Your task to perform on an android device: Search for the best coffee tables on Crate & Barrel Image 0: 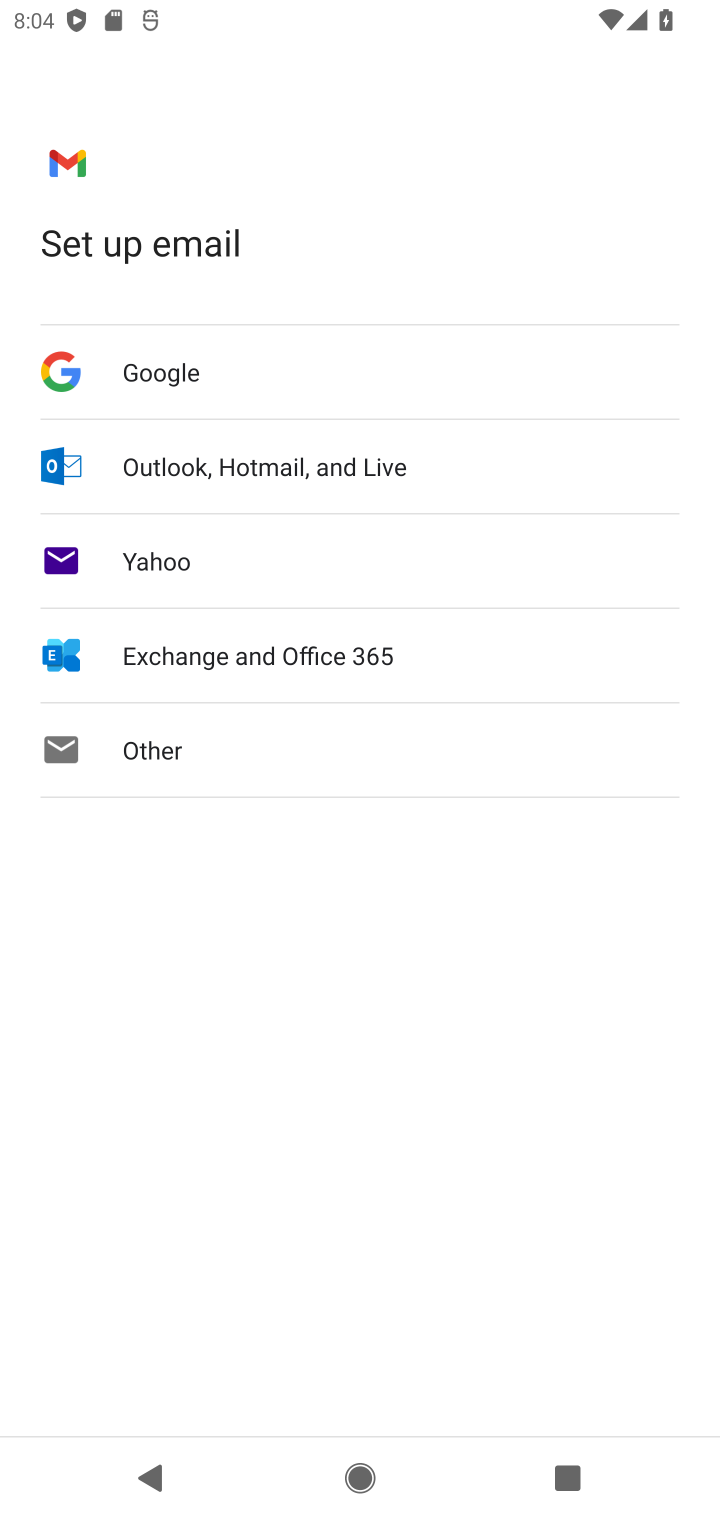
Step 0: press home button
Your task to perform on an android device: Search for the best coffee tables on Crate & Barrel Image 1: 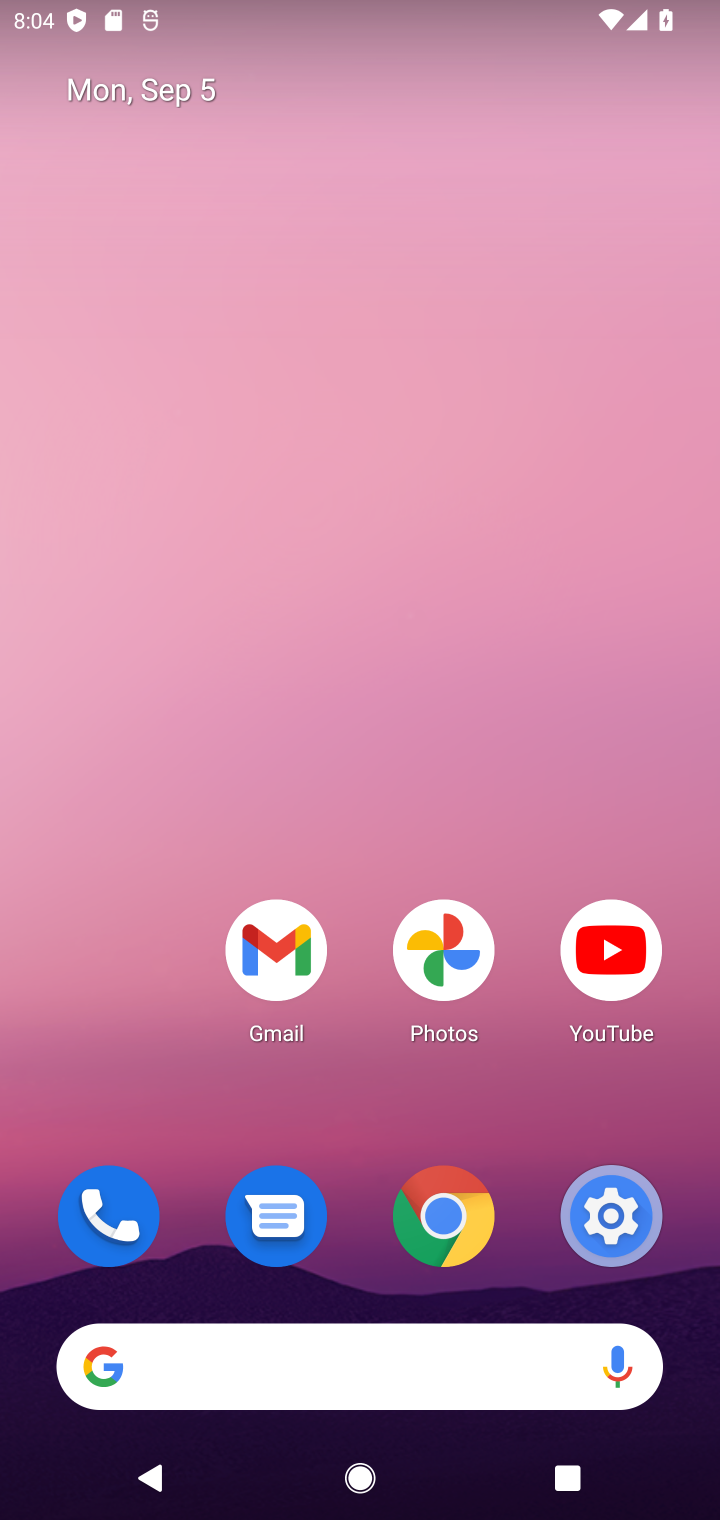
Step 1: click (330, 1366)
Your task to perform on an android device: Search for the best coffee tables on Crate & Barrel Image 2: 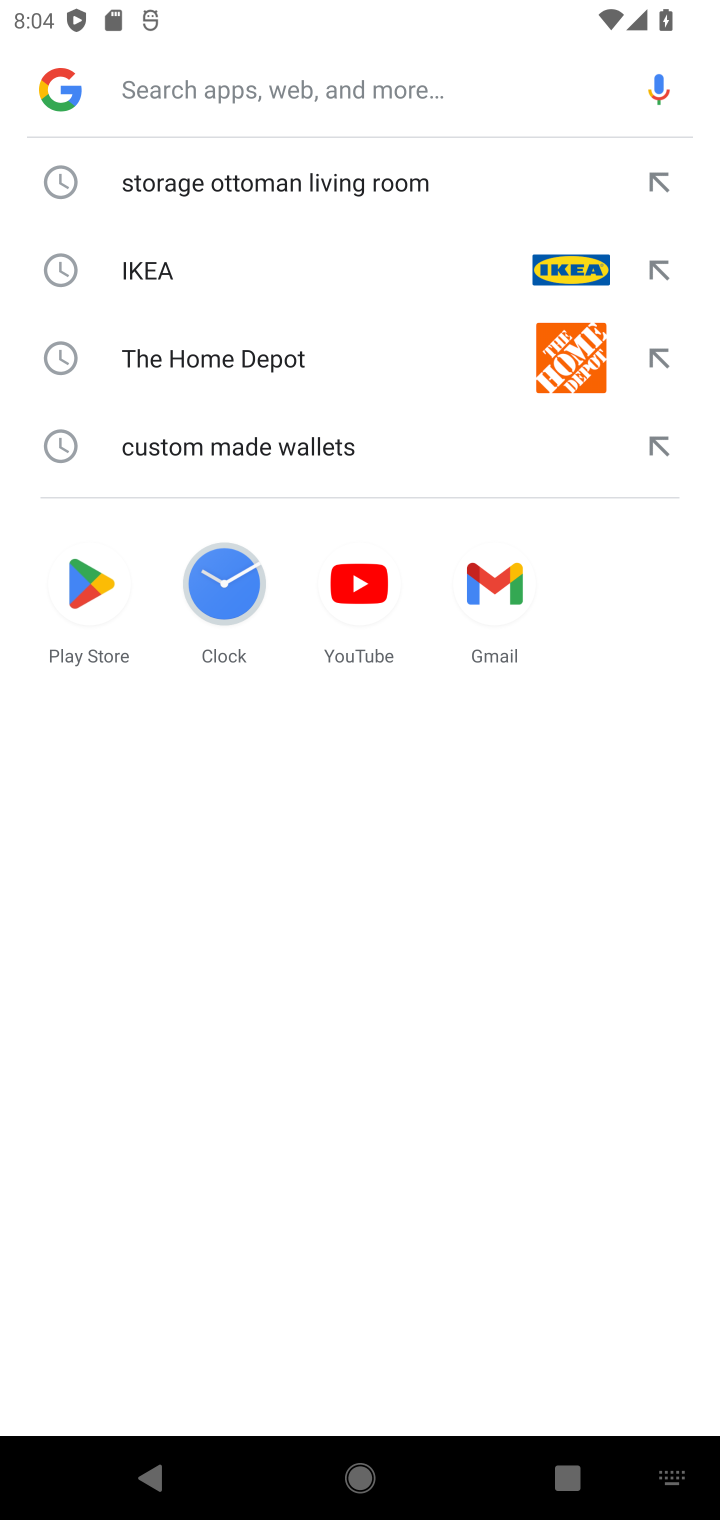
Step 2: type " Crate & Barrel"
Your task to perform on an android device: Search for the best coffee tables on Crate & Barrel Image 3: 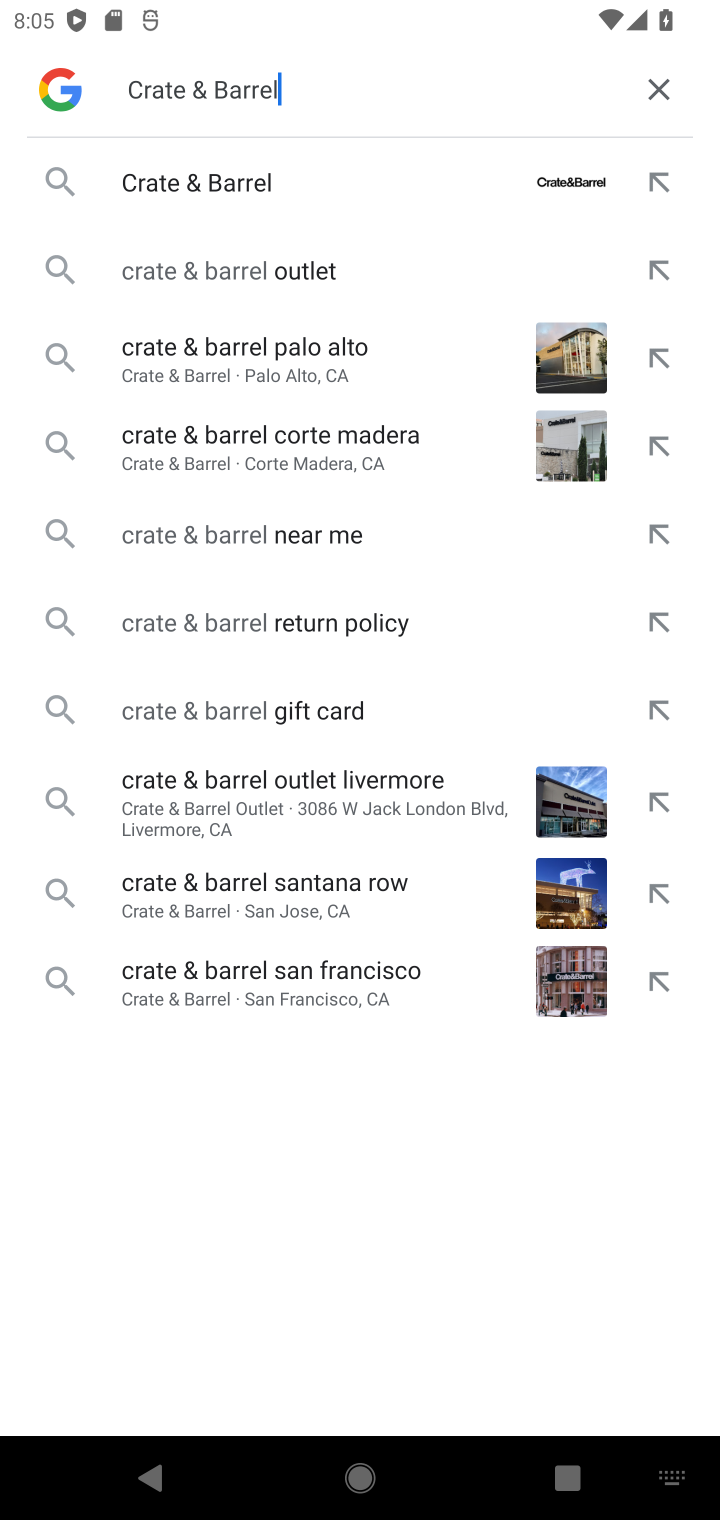
Step 3: click (270, 164)
Your task to perform on an android device: Search for the best coffee tables on Crate & Barrel Image 4: 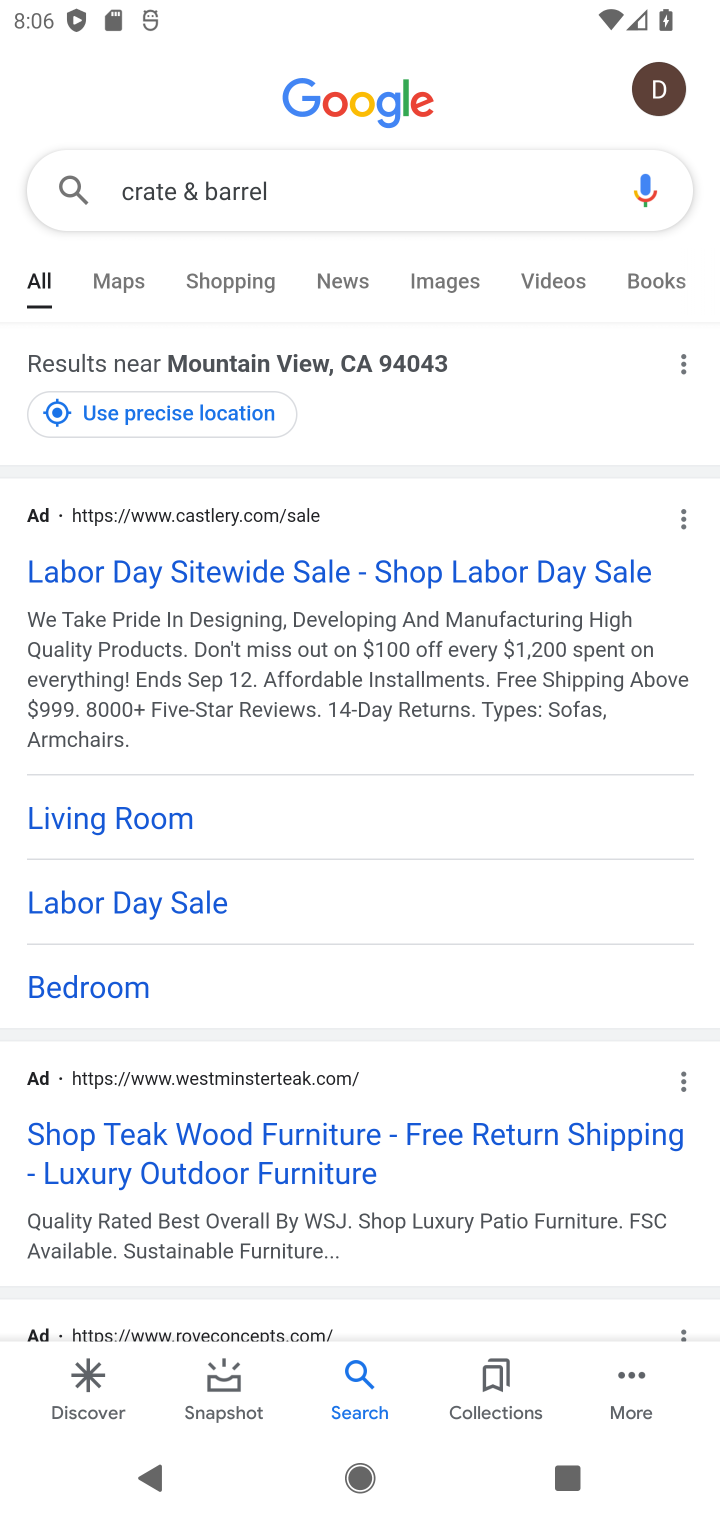
Step 4: drag from (295, 1038) to (260, 156)
Your task to perform on an android device: Search for the best coffee tables on Crate & Barrel Image 5: 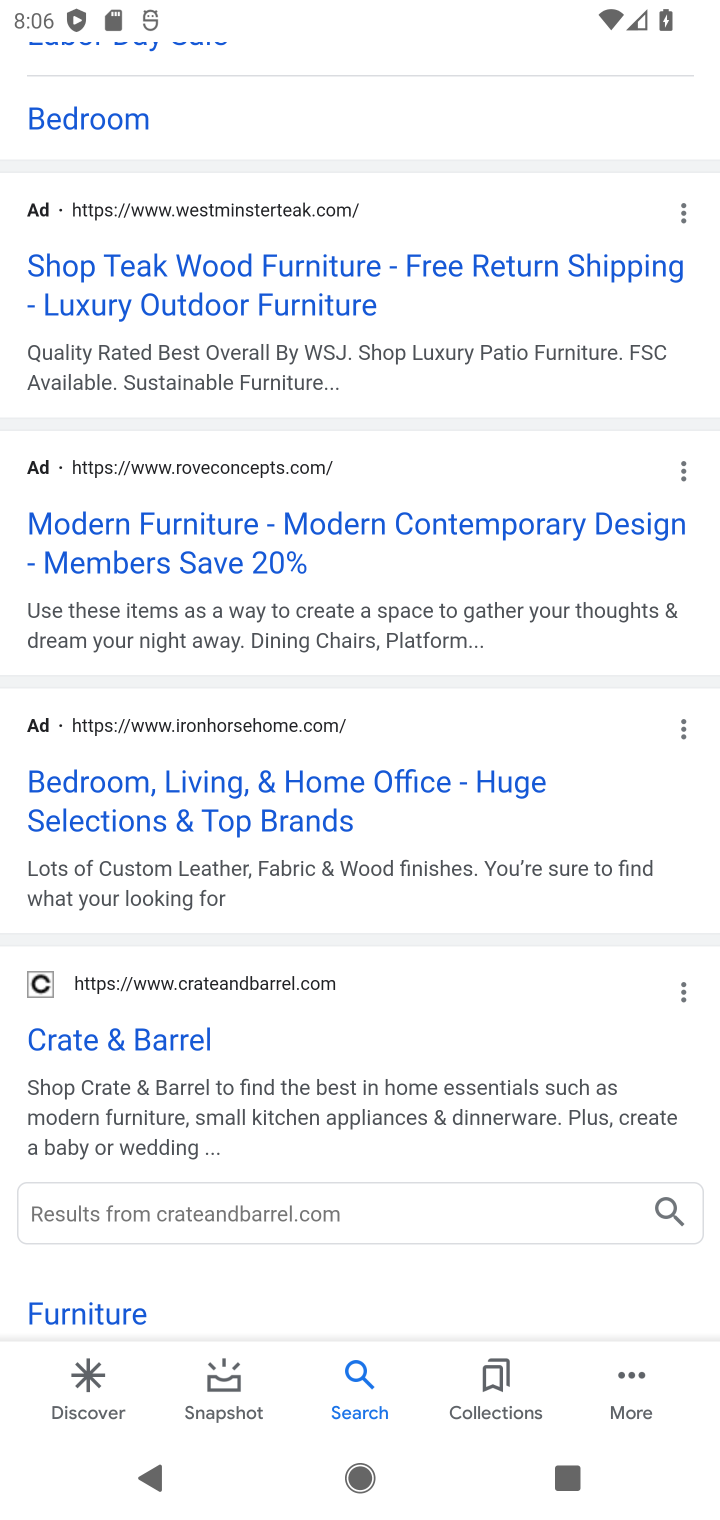
Step 5: drag from (303, 1183) to (137, 307)
Your task to perform on an android device: Search for the best coffee tables on Crate & Barrel Image 6: 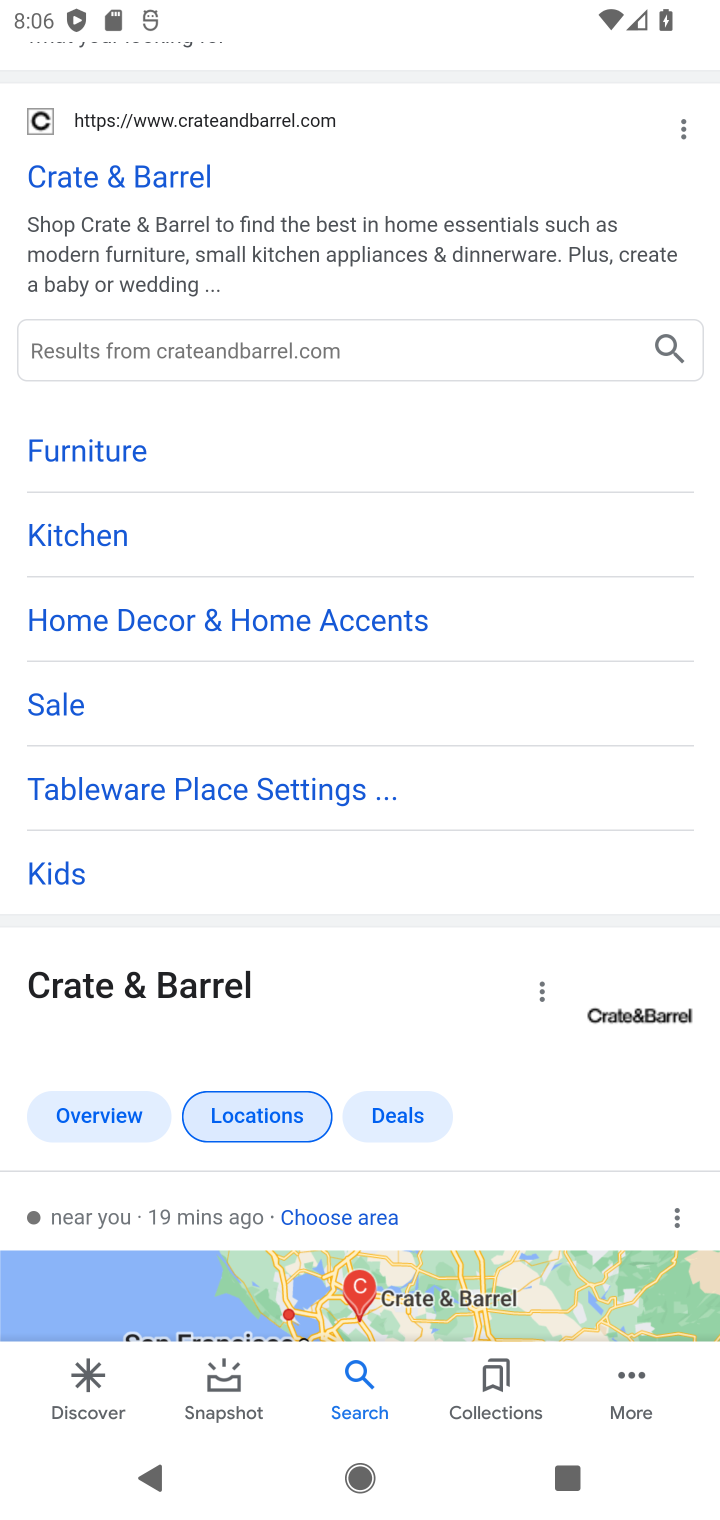
Step 6: click (107, 1052)
Your task to perform on an android device: Search for the best coffee tables on Crate & Barrel Image 7: 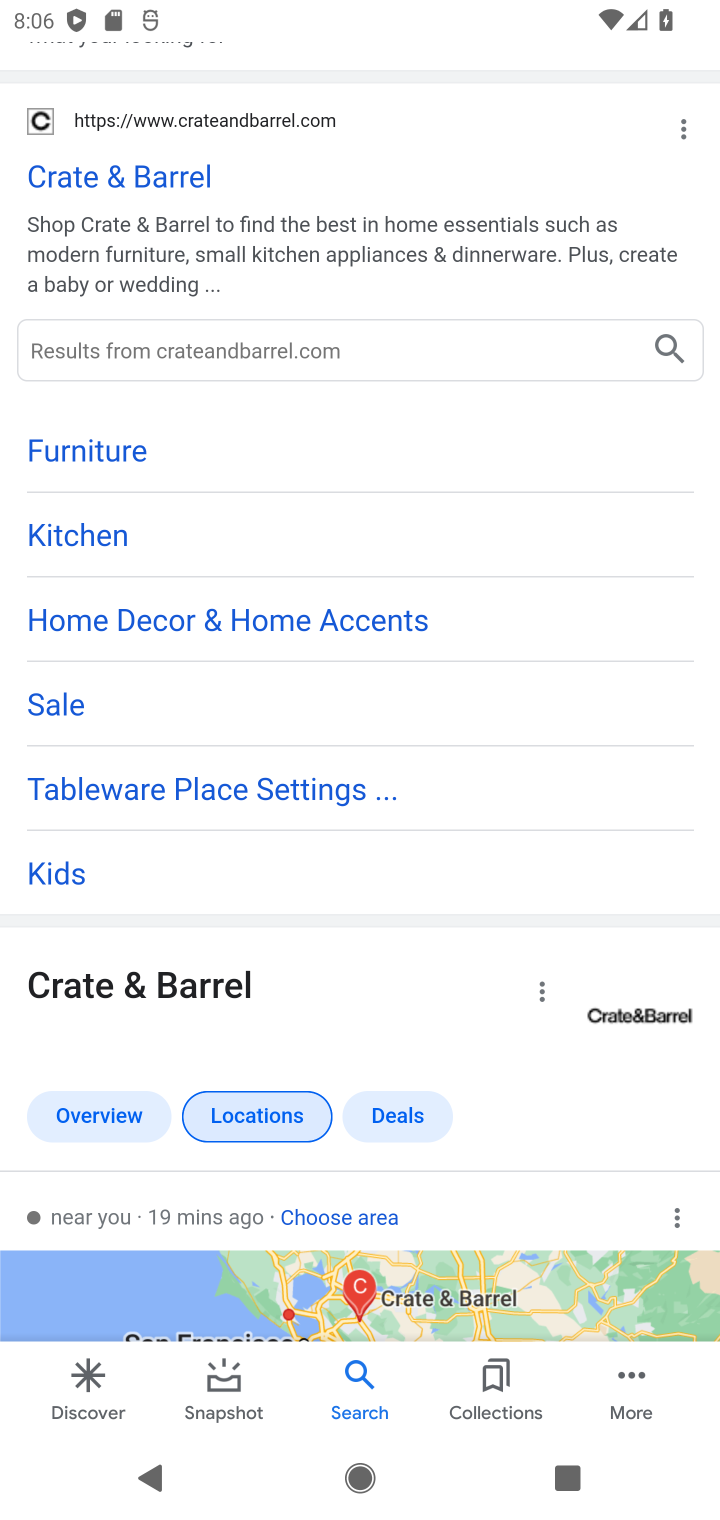
Step 7: click (123, 195)
Your task to perform on an android device: Search for the best coffee tables on Crate & Barrel Image 8: 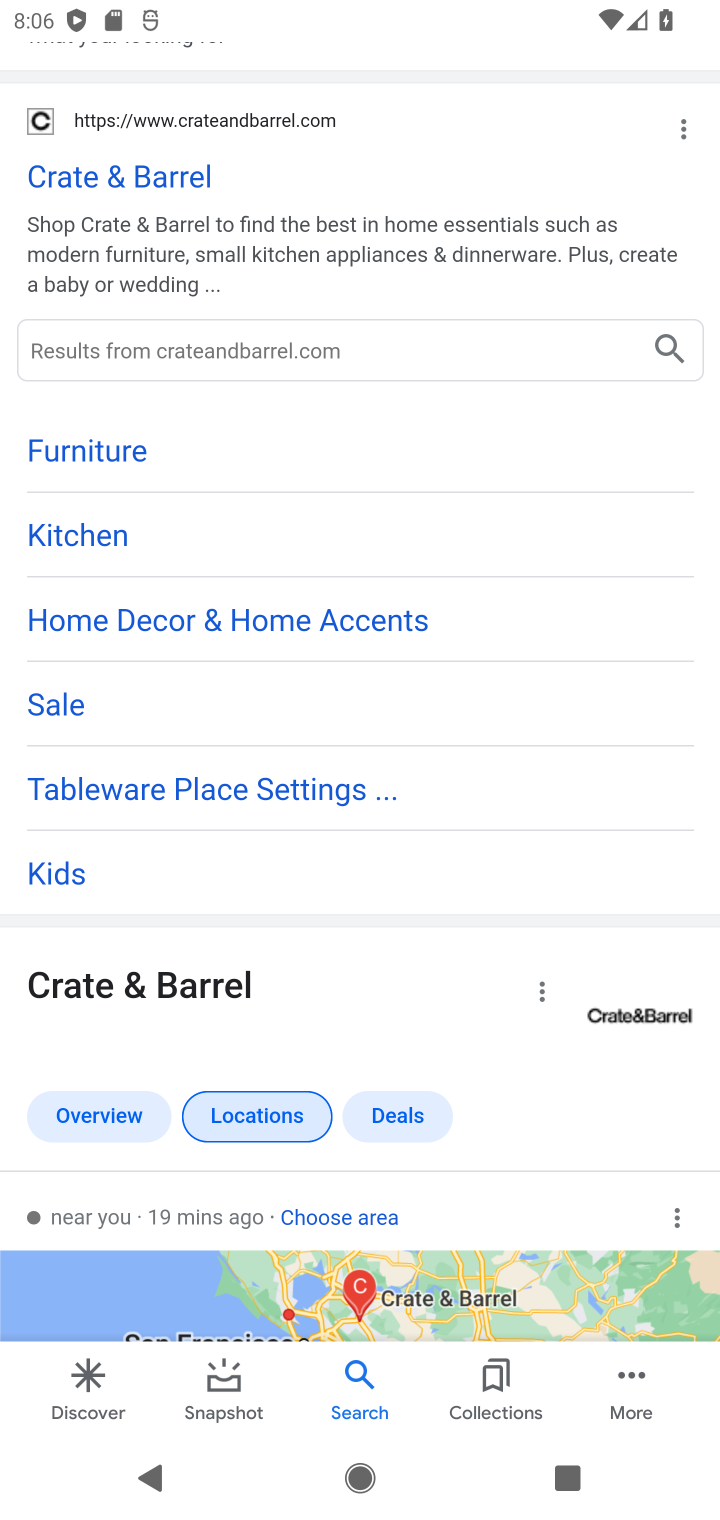
Step 8: click (131, 179)
Your task to perform on an android device: Search for the best coffee tables on Crate & Barrel Image 9: 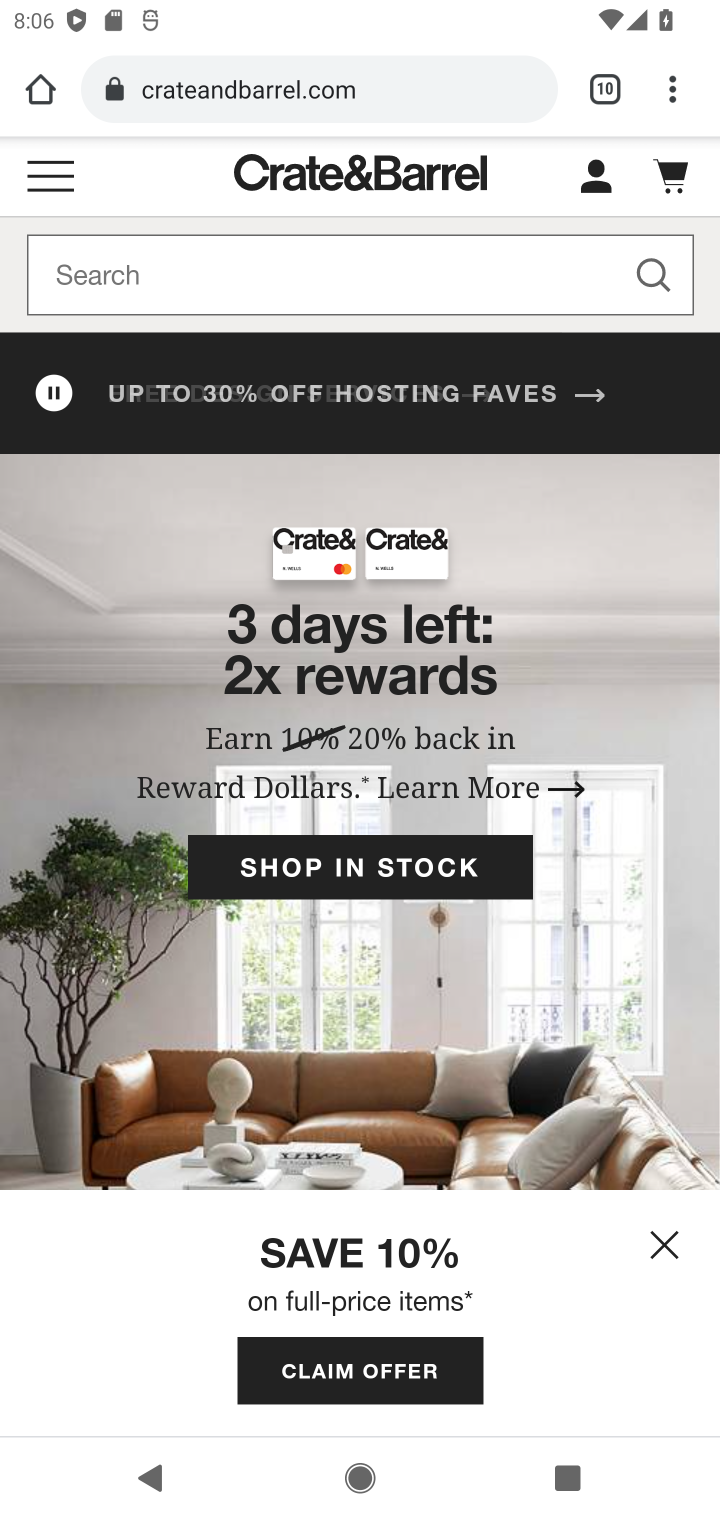
Step 9: click (365, 283)
Your task to perform on an android device: Search for the best coffee tables on Crate & Barrel Image 10: 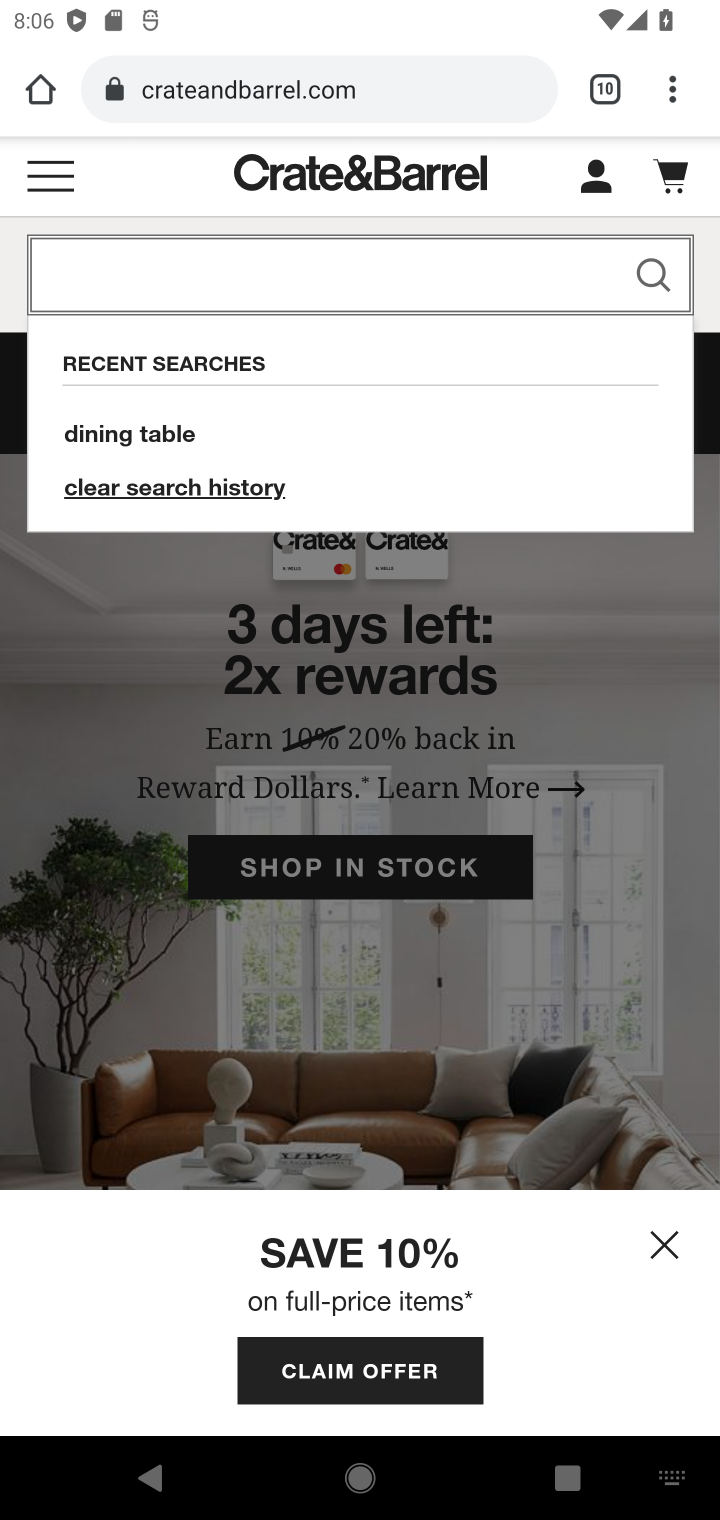
Step 10: type "coffee tables"
Your task to perform on an android device: Search for the best coffee tables on Crate & Barrel Image 11: 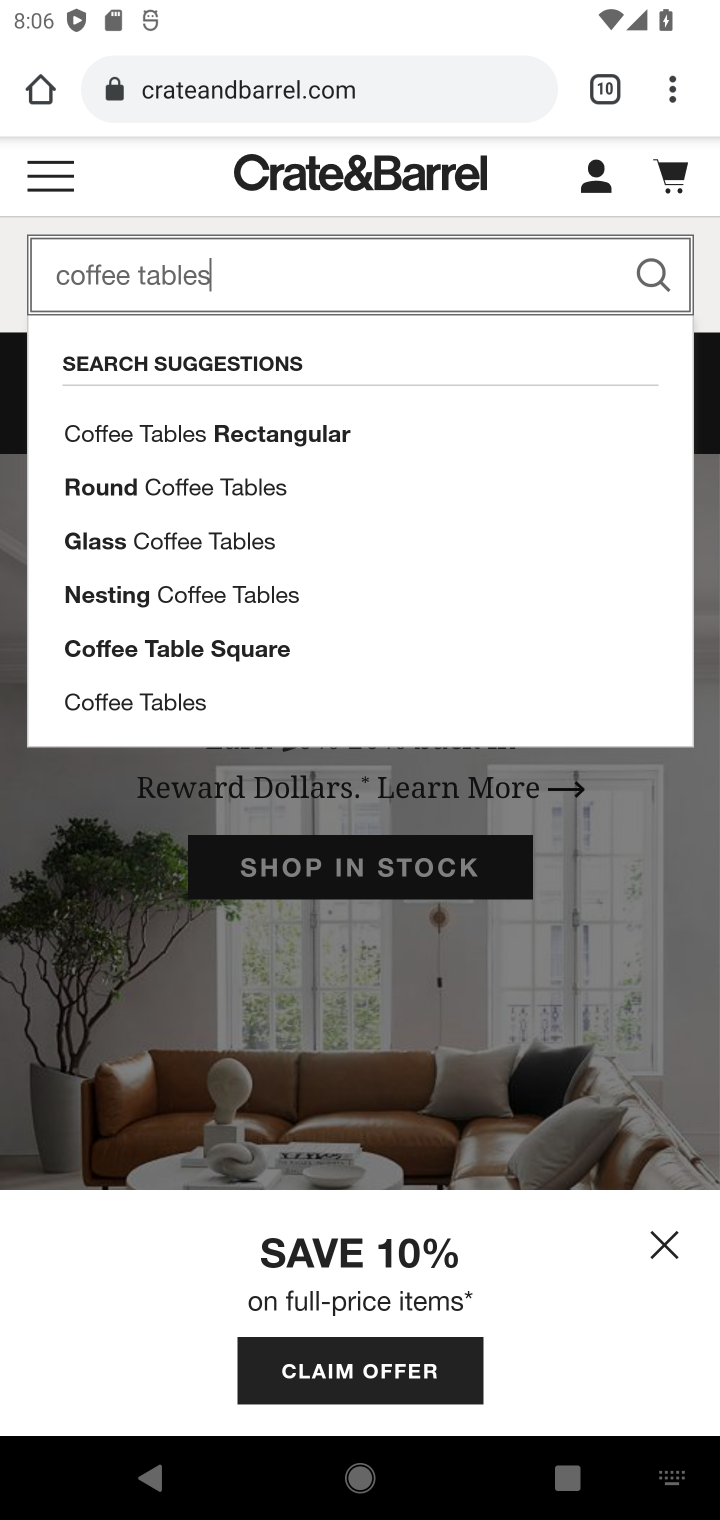
Step 11: click (635, 289)
Your task to perform on an android device: Search for the best coffee tables on Crate & Barrel Image 12: 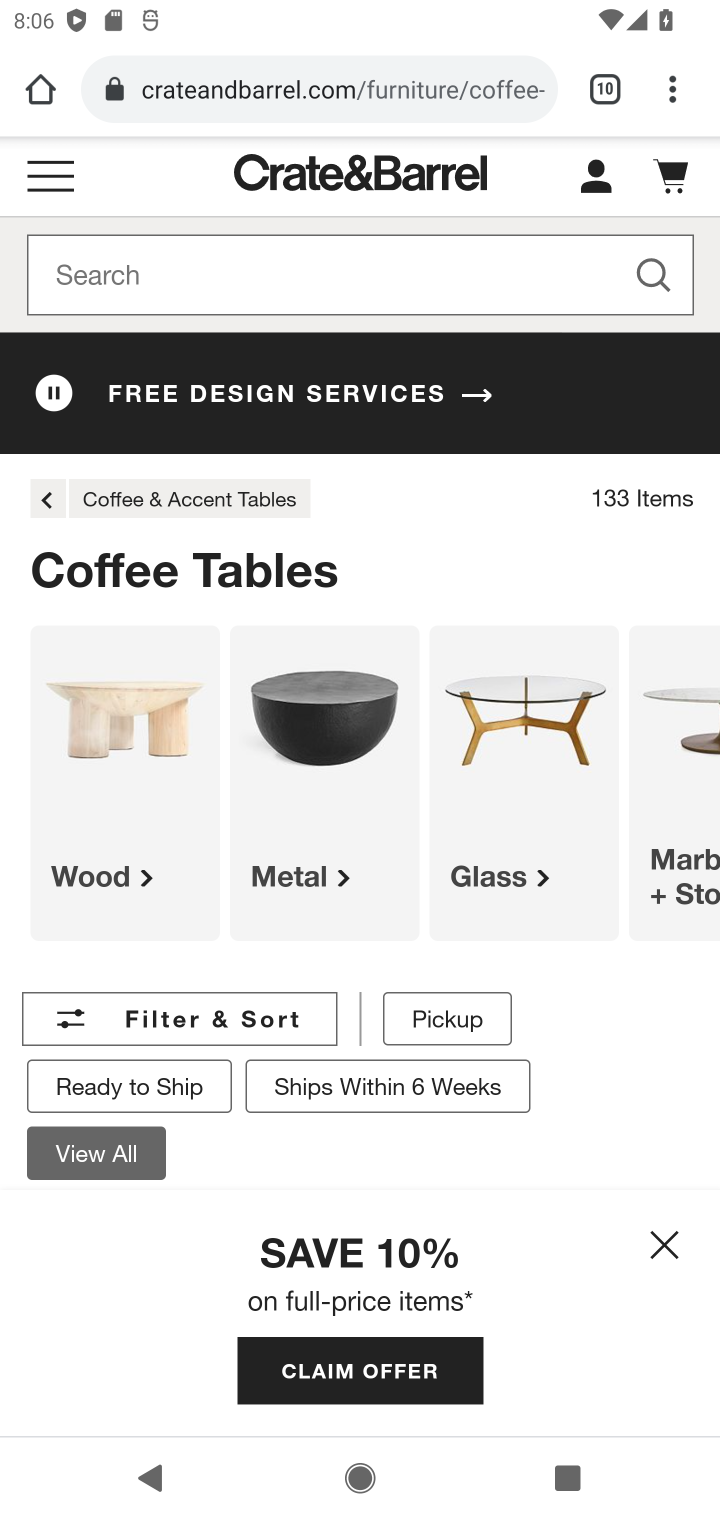
Step 12: task complete